Your task to perform on an android device: turn off notifications in google photos Image 0: 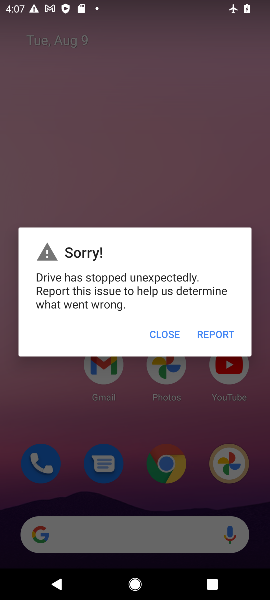
Step 0: drag from (139, 4) to (140, 327)
Your task to perform on an android device: turn off notifications in google photos Image 1: 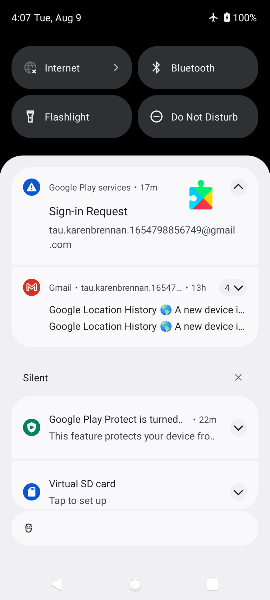
Step 1: drag from (122, 127) to (128, 448)
Your task to perform on an android device: turn off notifications in google photos Image 2: 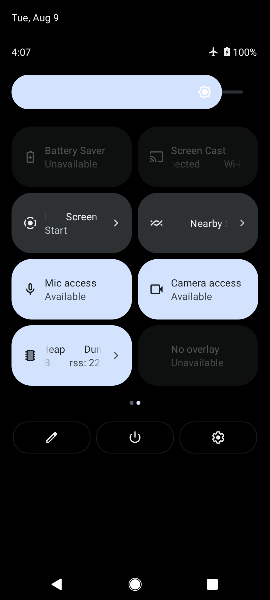
Step 2: drag from (12, 320) to (269, 329)
Your task to perform on an android device: turn off notifications in google photos Image 3: 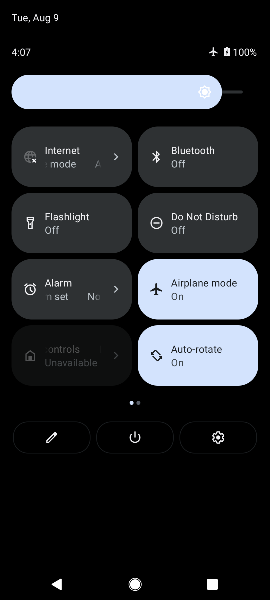
Step 3: click (161, 292)
Your task to perform on an android device: turn off notifications in google photos Image 4: 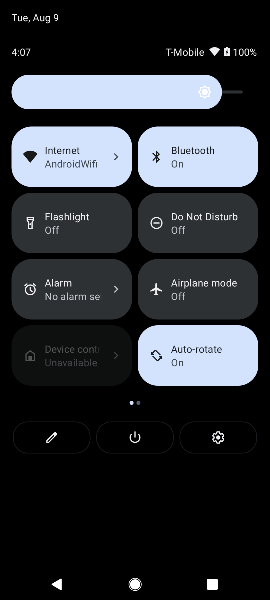
Step 4: press home button
Your task to perform on an android device: turn off notifications in google photos Image 5: 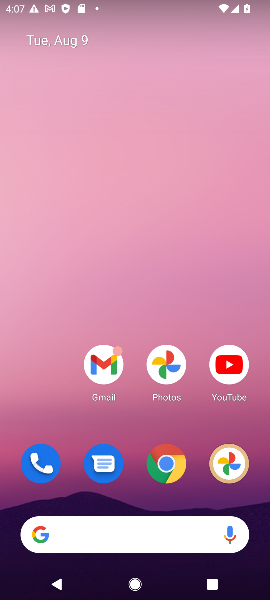
Step 5: click (173, 362)
Your task to perform on an android device: turn off notifications in google photos Image 6: 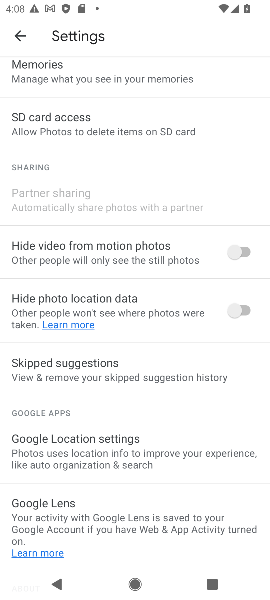
Step 6: drag from (68, 500) to (86, 143)
Your task to perform on an android device: turn off notifications in google photos Image 7: 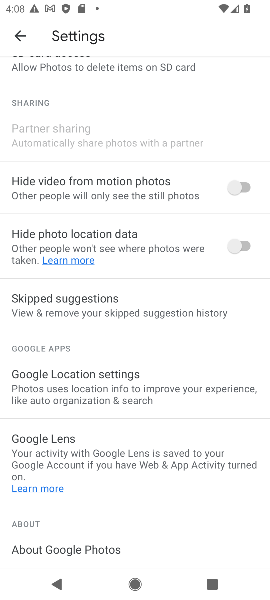
Step 7: drag from (66, 88) to (74, 480)
Your task to perform on an android device: turn off notifications in google photos Image 8: 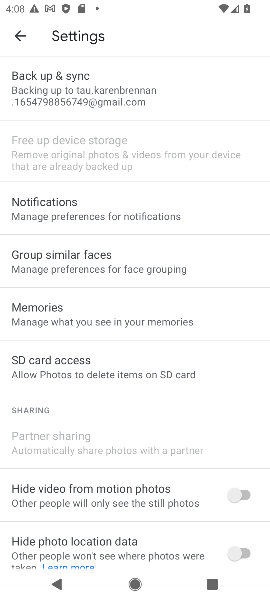
Step 8: click (56, 90)
Your task to perform on an android device: turn off notifications in google photos Image 9: 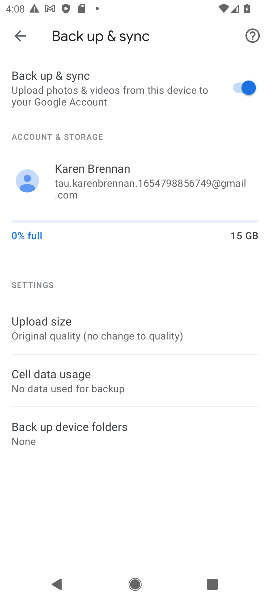
Step 9: click (15, 31)
Your task to perform on an android device: turn off notifications in google photos Image 10: 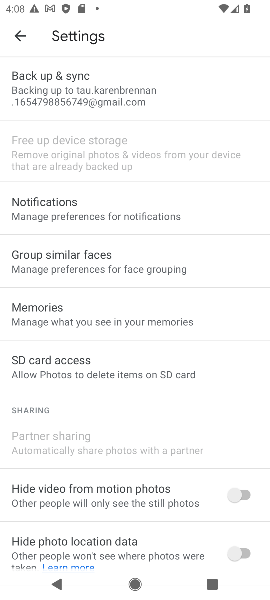
Step 10: click (33, 210)
Your task to perform on an android device: turn off notifications in google photos Image 11: 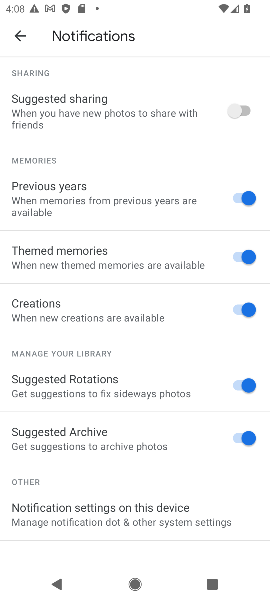
Step 11: click (99, 510)
Your task to perform on an android device: turn off notifications in google photos Image 12: 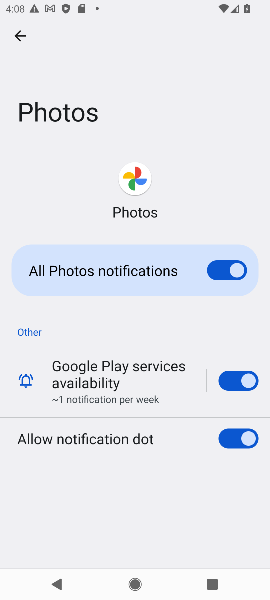
Step 12: drag from (141, 408) to (111, 128)
Your task to perform on an android device: turn off notifications in google photos Image 13: 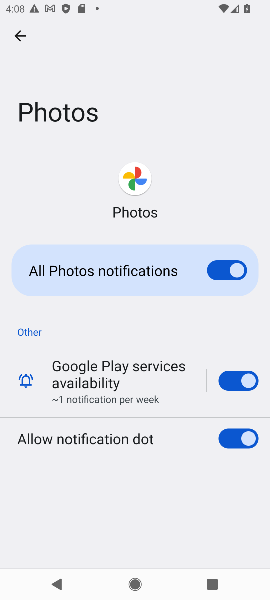
Step 13: click (219, 269)
Your task to perform on an android device: turn off notifications in google photos Image 14: 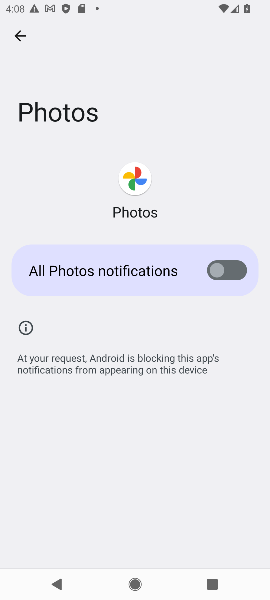
Step 14: task complete